Your task to perform on an android device: set default search engine in the chrome app Image 0: 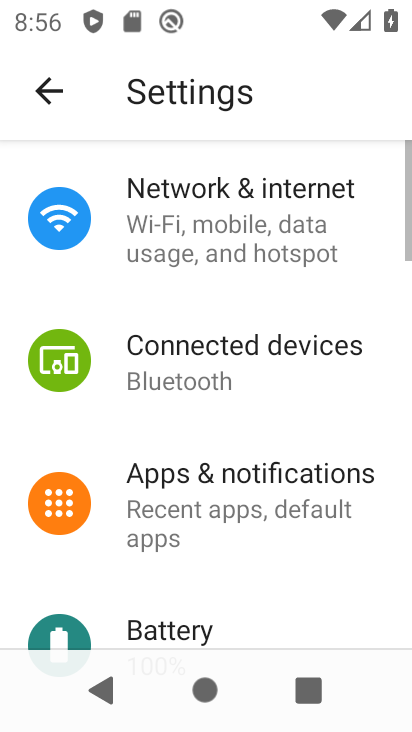
Step 0: press home button
Your task to perform on an android device: set default search engine in the chrome app Image 1: 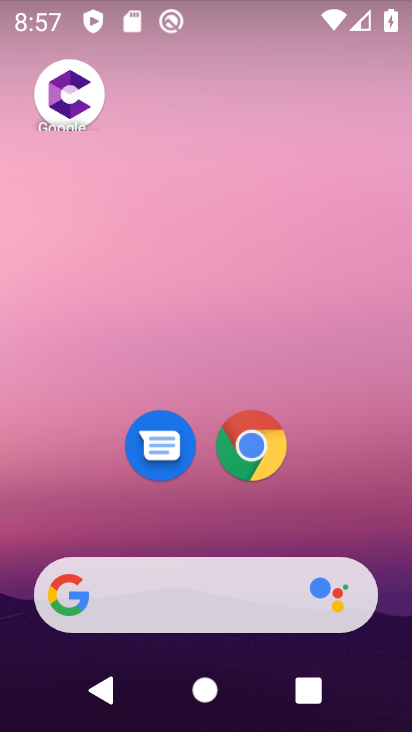
Step 1: drag from (225, 536) to (216, 17)
Your task to perform on an android device: set default search engine in the chrome app Image 2: 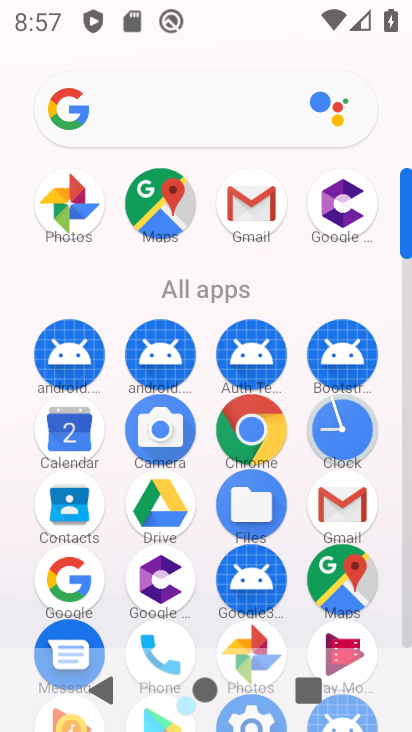
Step 2: click (254, 436)
Your task to perform on an android device: set default search engine in the chrome app Image 3: 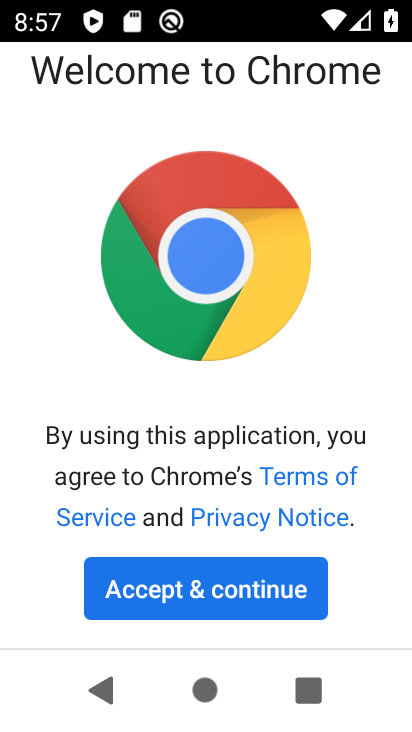
Step 3: click (251, 575)
Your task to perform on an android device: set default search engine in the chrome app Image 4: 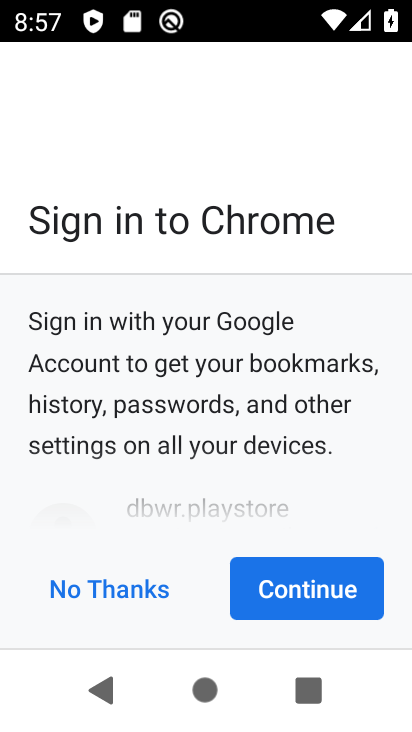
Step 4: click (251, 575)
Your task to perform on an android device: set default search engine in the chrome app Image 5: 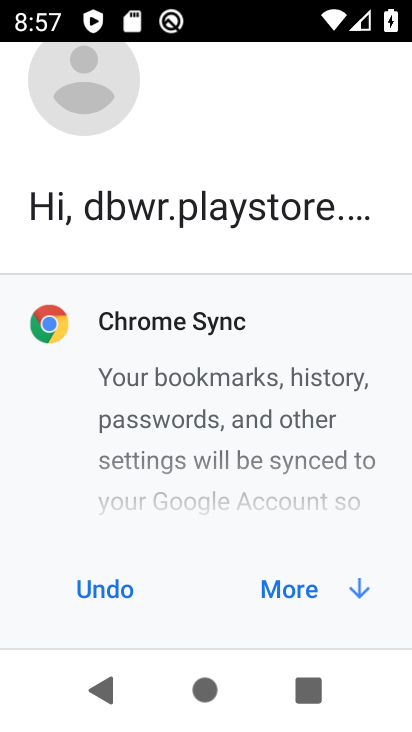
Step 5: click (288, 592)
Your task to perform on an android device: set default search engine in the chrome app Image 6: 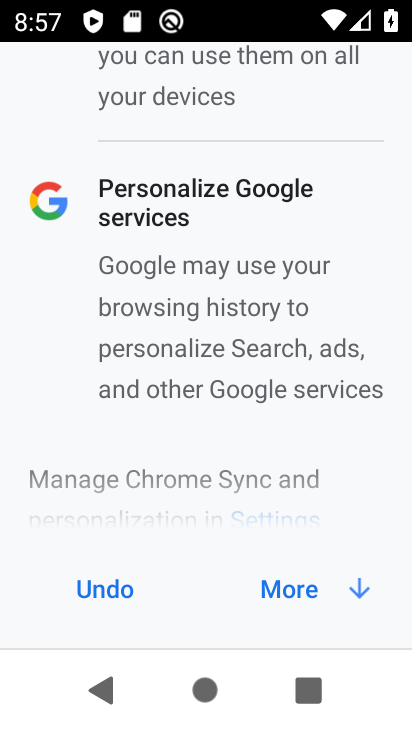
Step 6: click (288, 592)
Your task to perform on an android device: set default search engine in the chrome app Image 7: 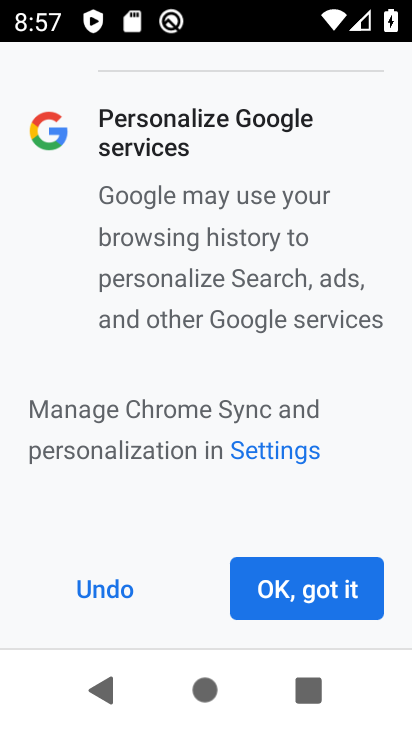
Step 7: click (288, 592)
Your task to perform on an android device: set default search engine in the chrome app Image 8: 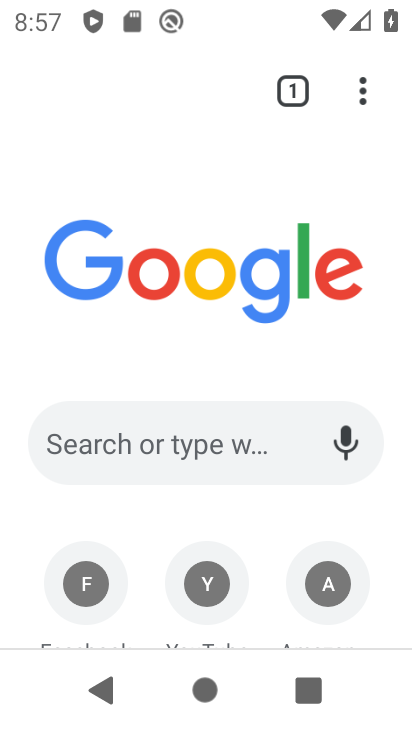
Step 8: click (364, 94)
Your task to perform on an android device: set default search engine in the chrome app Image 9: 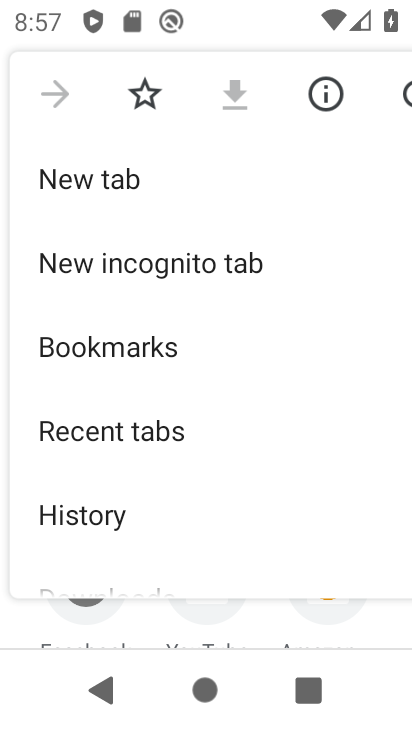
Step 9: drag from (112, 485) to (93, 229)
Your task to perform on an android device: set default search engine in the chrome app Image 10: 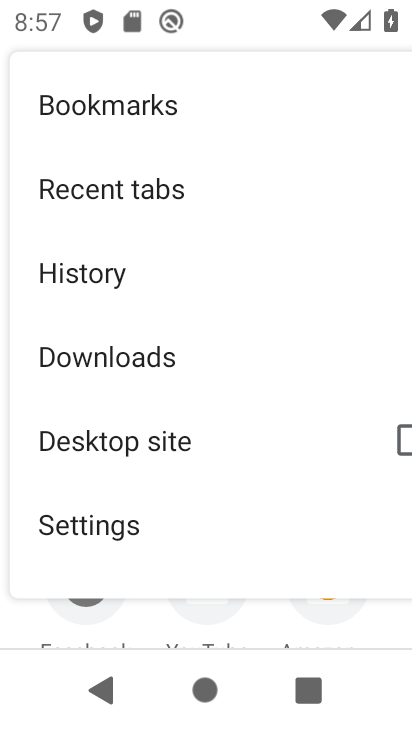
Step 10: click (86, 507)
Your task to perform on an android device: set default search engine in the chrome app Image 11: 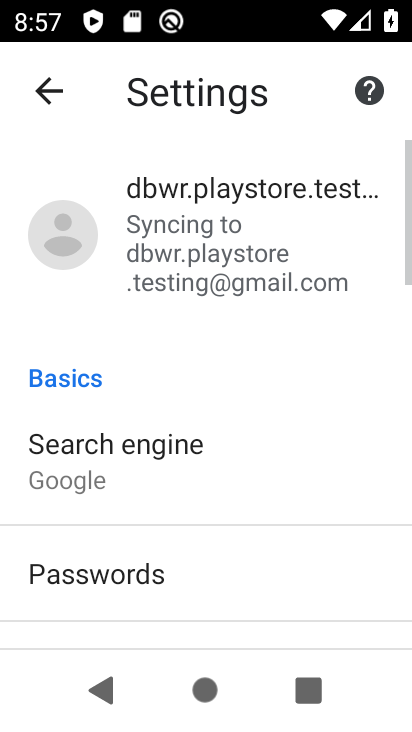
Step 11: click (93, 491)
Your task to perform on an android device: set default search engine in the chrome app Image 12: 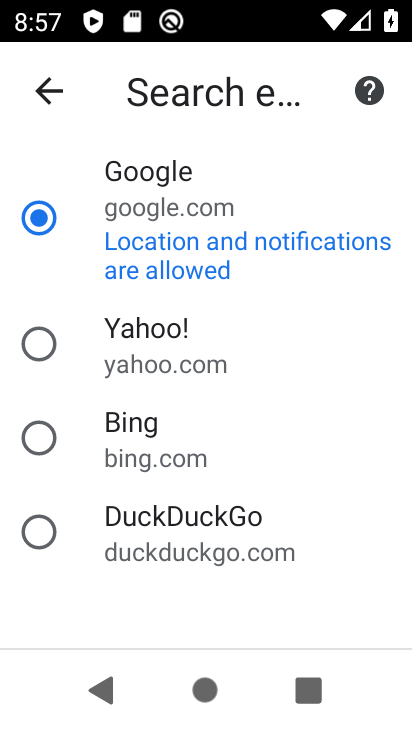
Step 12: click (243, 206)
Your task to perform on an android device: set default search engine in the chrome app Image 13: 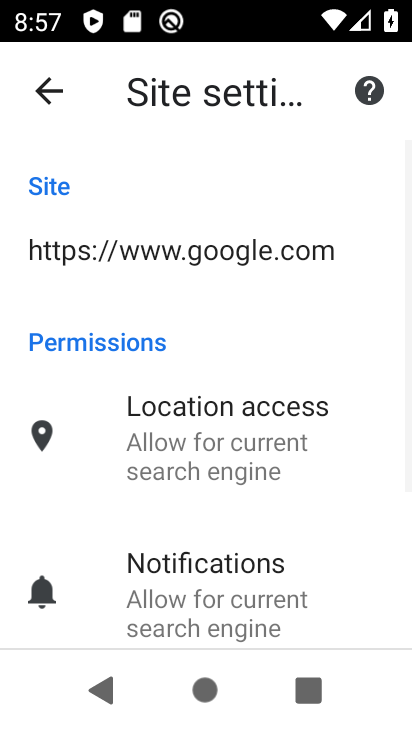
Step 13: task complete